Your task to perform on an android device: change the upload size in google photos Image 0: 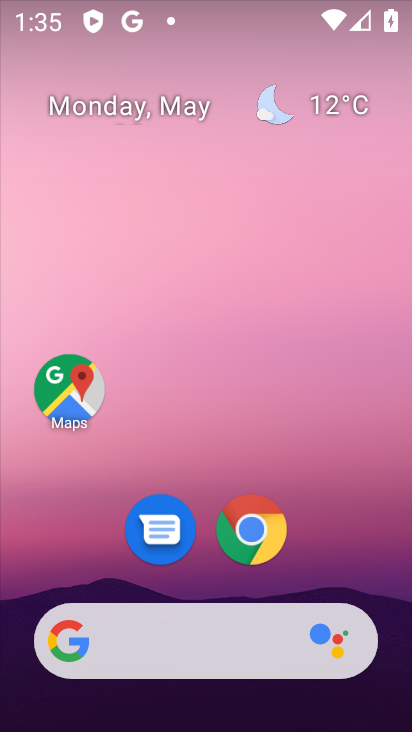
Step 0: drag from (393, 602) to (276, 153)
Your task to perform on an android device: change the upload size in google photos Image 1: 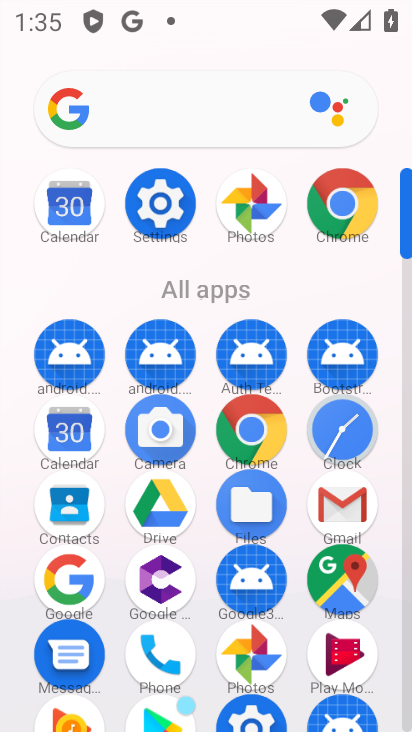
Step 1: click (407, 678)
Your task to perform on an android device: change the upload size in google photos Image 2: 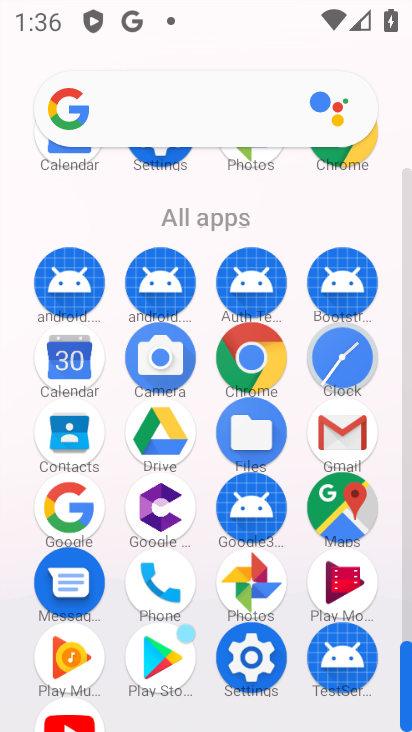
Step 2: click (252, 577)
Your task to perform on an android device: change the upload size in google photos Image 3: 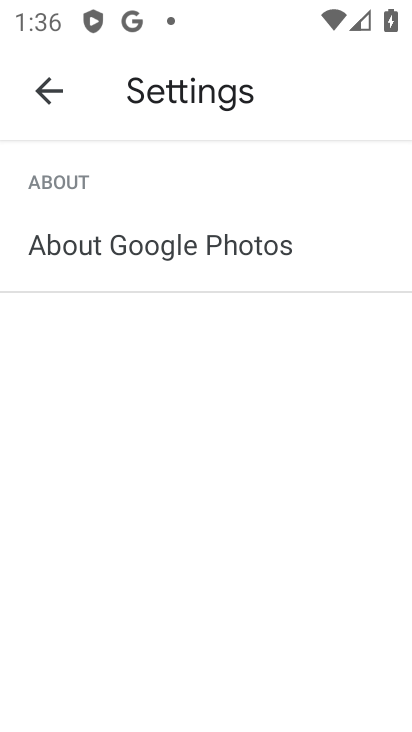
Step 3: press back button
Your task to perform on an android device: change the upload size in google photos Image 4: 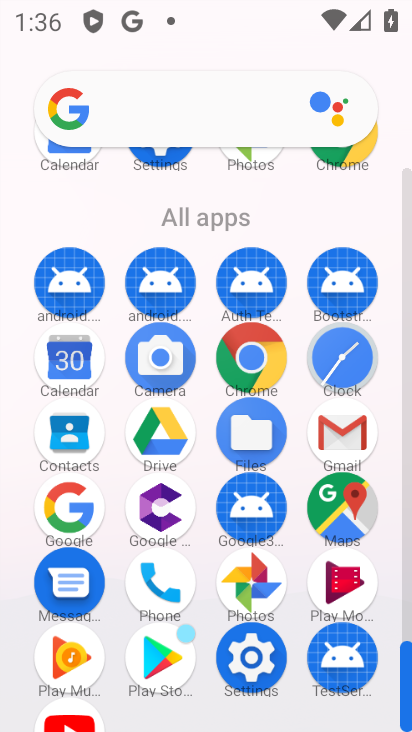
Step 4: click (250, 584)
Your task to perform on an android device: change the upload size in google photos Image 5: 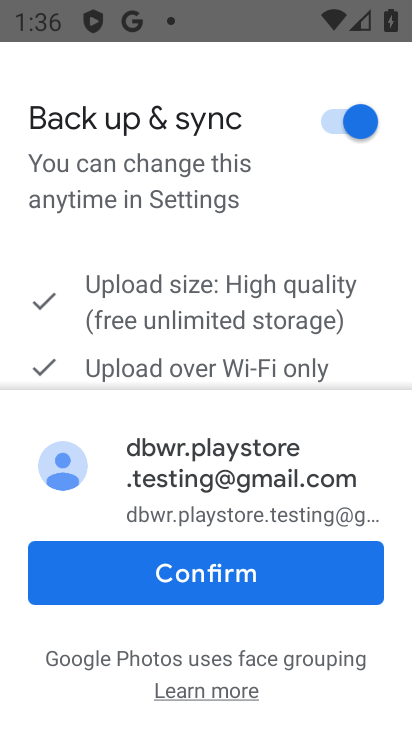
Step 5: click (188, 592)
Your task to perform on an android device: change the upload size in google photos Image 6: 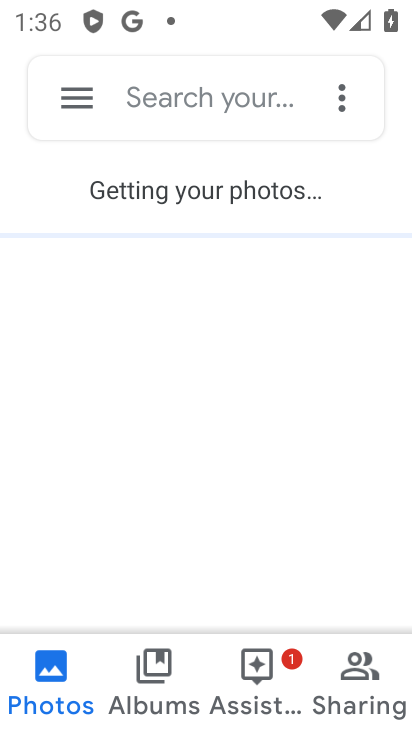
Step 6: click (68, 107)
Your task to perform on an android device: change the upload size in google photos Image 7: 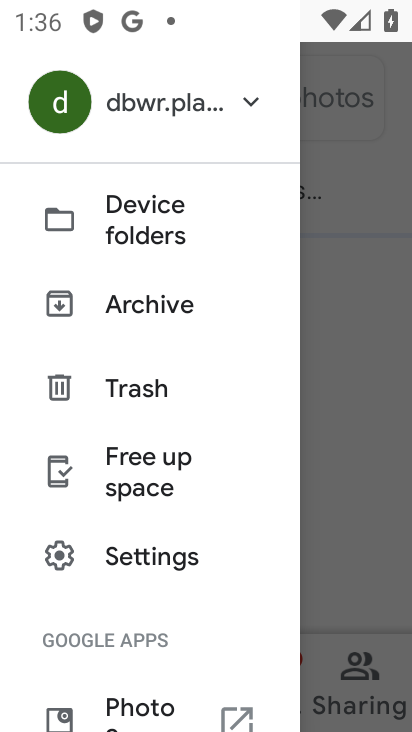
Step 7: click (153, 555)
Your task to perform on an android device: change the upload size in google photos Image 8: 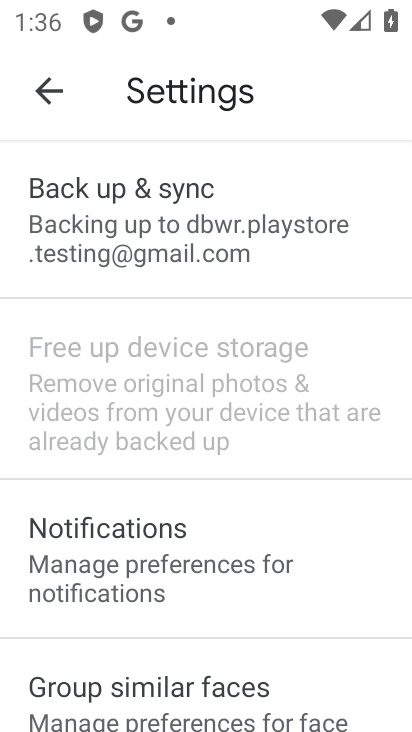
Step 8: click (117, 211)
Your task to perform on an android device: change the upload size in google photos Image 9: 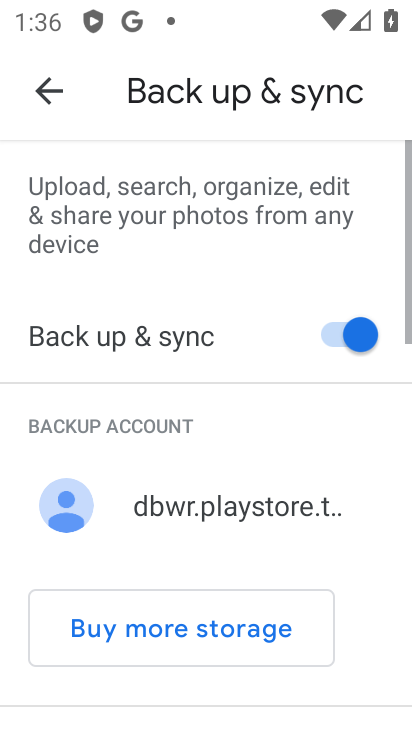
Step 9: drag from (245, 598) to (251, 269)
Your task to perform on an android device: change the upload size in google photos Image 10: 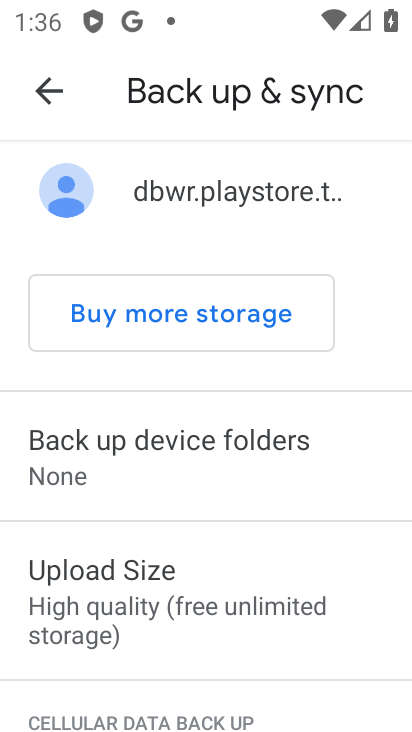
Step 10: click (119, 575)
Your task to perform on an android device: change the upload size in google photos Image 11: 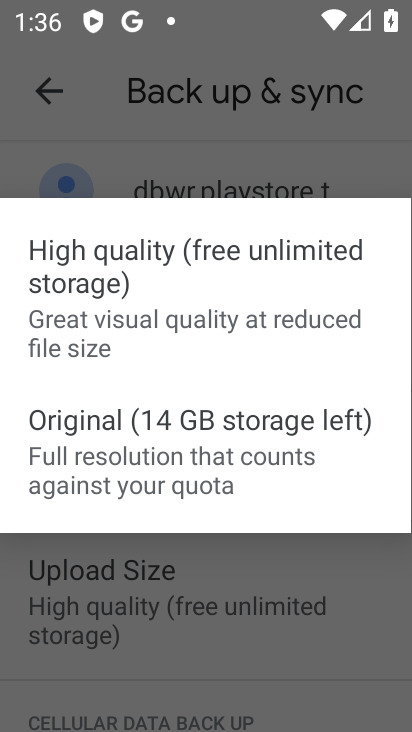
Step 11: click (133, 418)
Your task to perform on an android device: change the upload size in google photos Image 12: 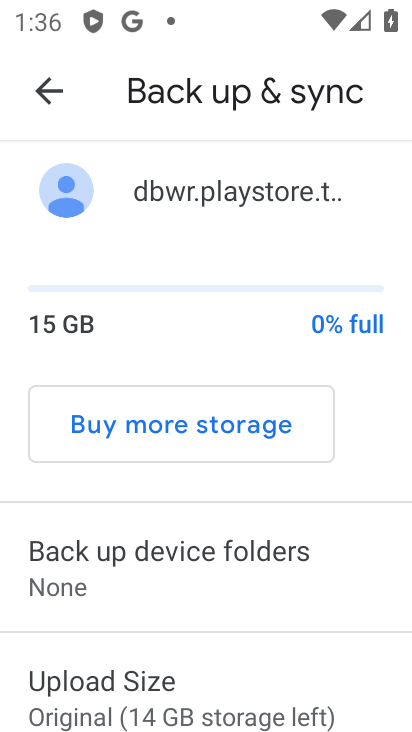
Step 12: task complete